Your task to perform on an android device: Open my contact list Image 0: 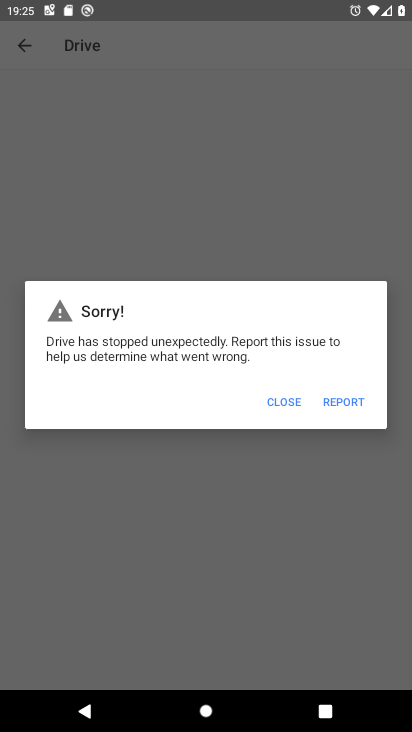
Step 0: press home button
Your task to perform on an android device: Open my contact list Image 1: 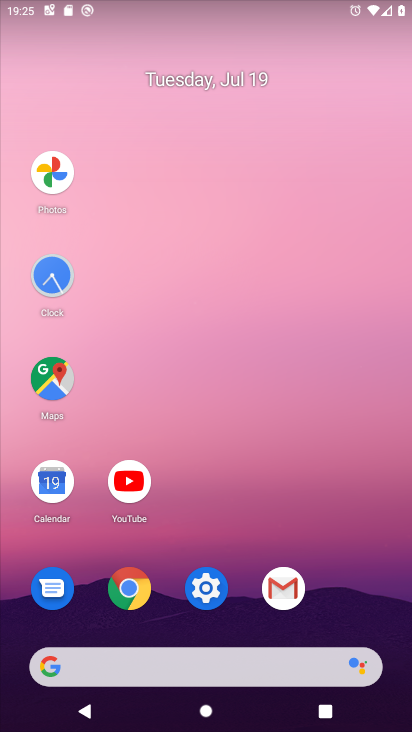
Step 1: drag from (334, 575) to (236, 108)
Your task to perform on an android device: Open my contact list Image 2: 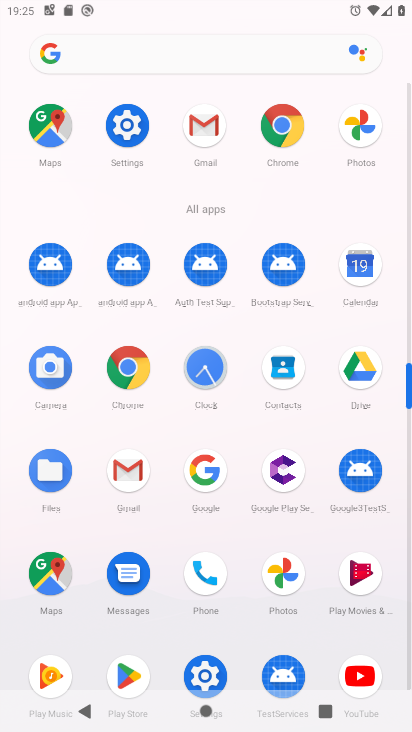
Step 2: click (283, 365)
Your task to perform on an android device: Open my contact list Image 3: 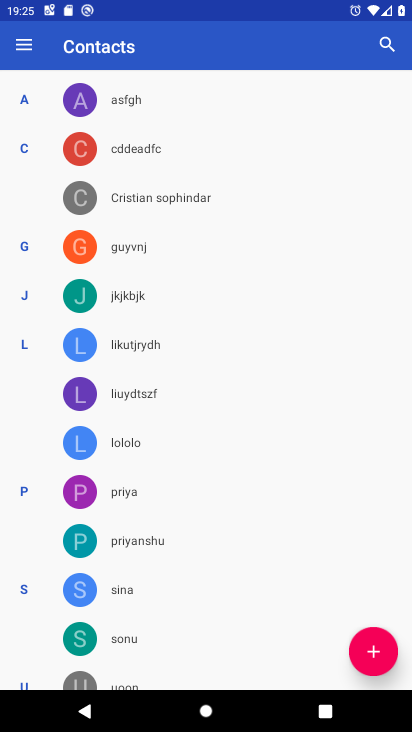
Step 3: task complete